Your task to perform on an android device: Add lg ultragear to the cart on amazon.com, then select checkout. Image 0: 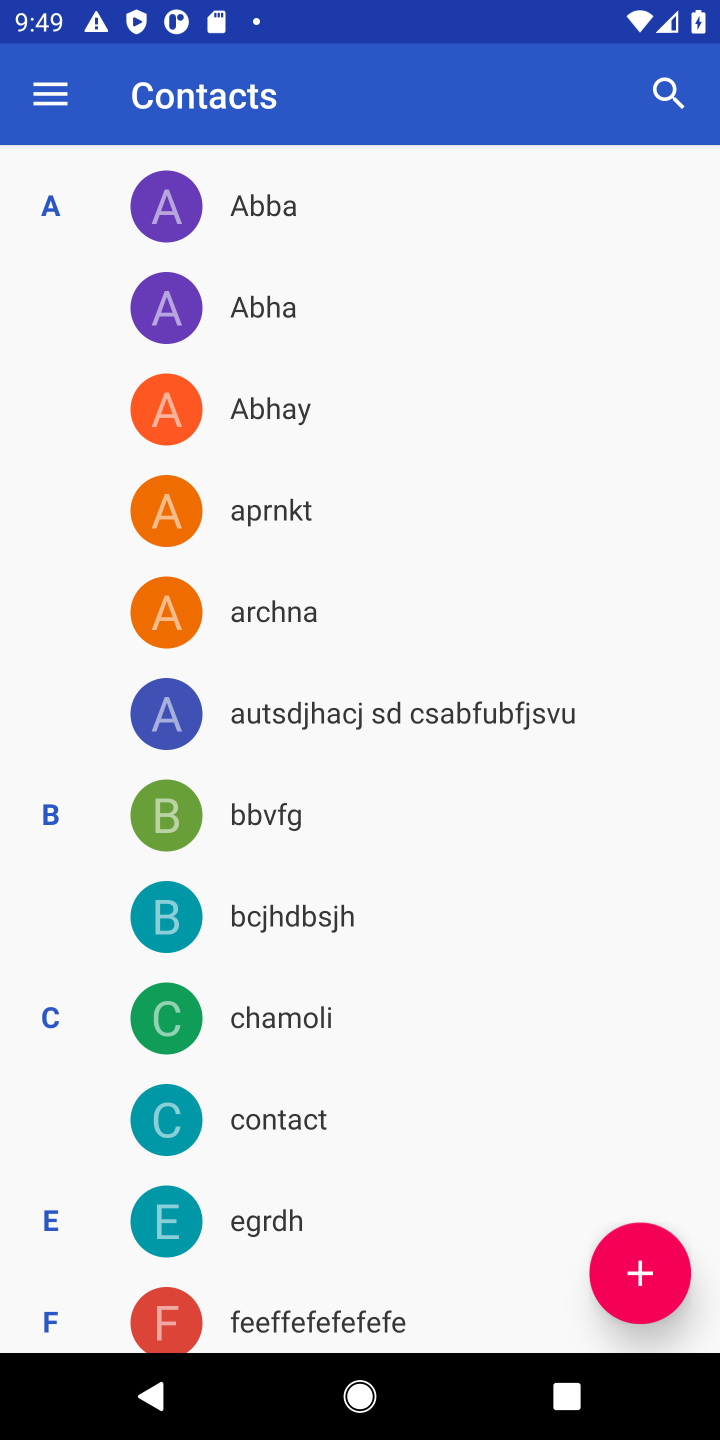
Step 0: press home button
Your task to perform on an android device: Add lg ultragear to the cart on amazon.com, then select checkout. Image 1: 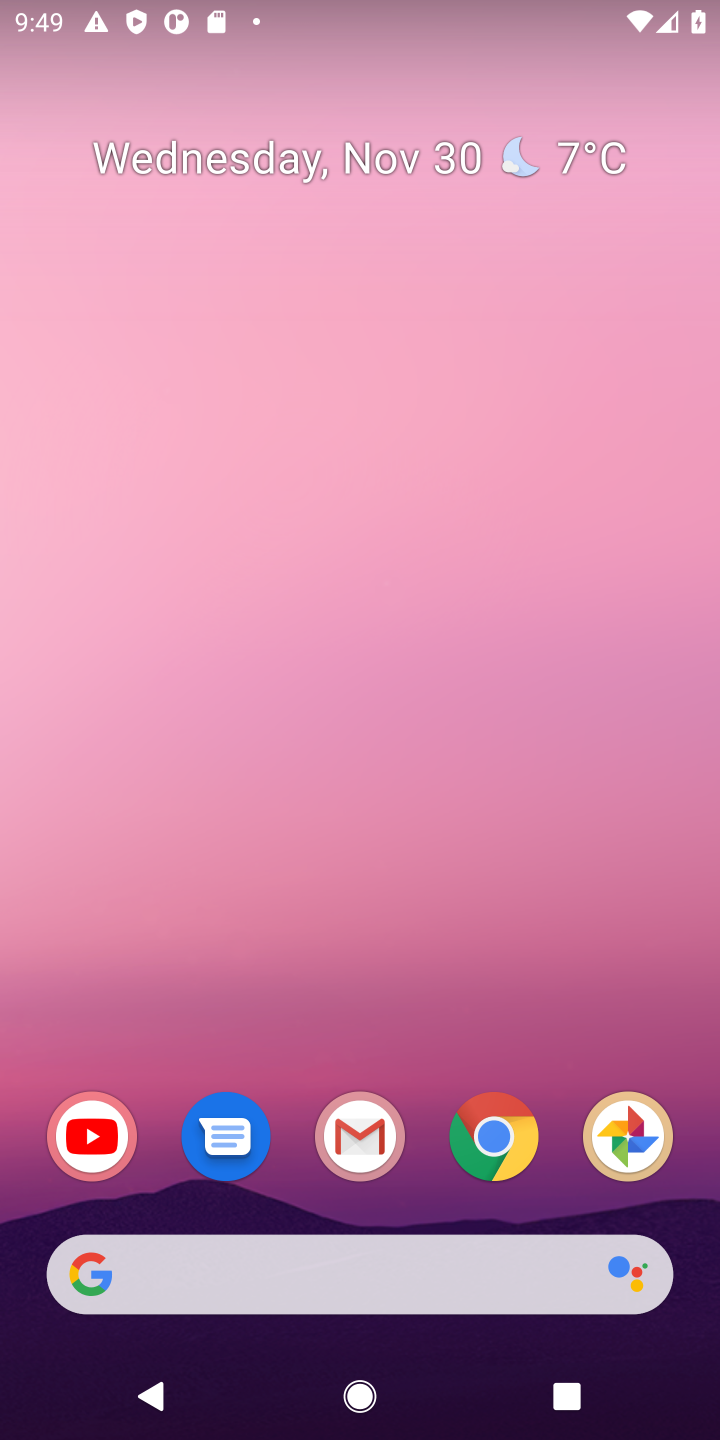
Step 1: click (490, 1133)
Your task to perform on an android device: Add lg ultragear to the cart on amazon.com, then select checkout. Image 2: 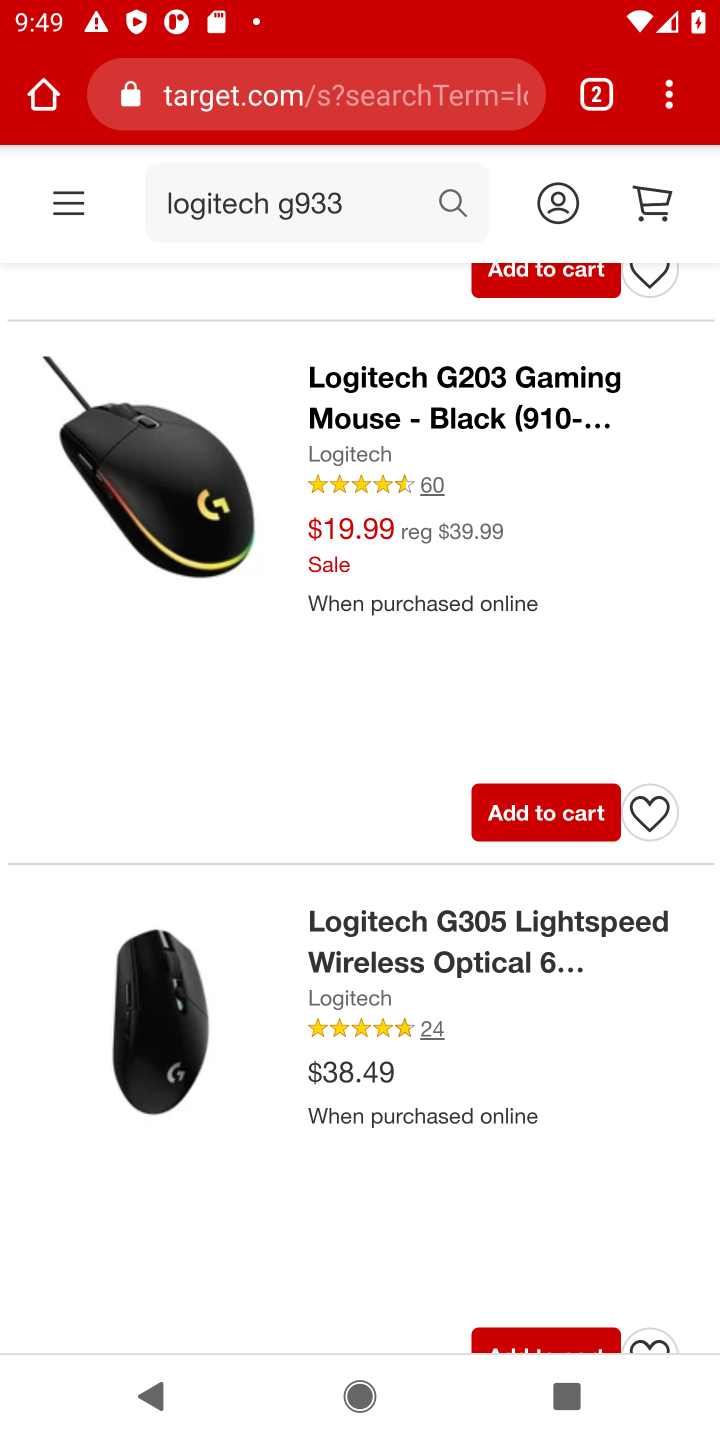
Step 2: click (254, 111)
Your task to perform on an android device: Add lg ultragear to the cart on amazon.com, then select checkout. Image 3: 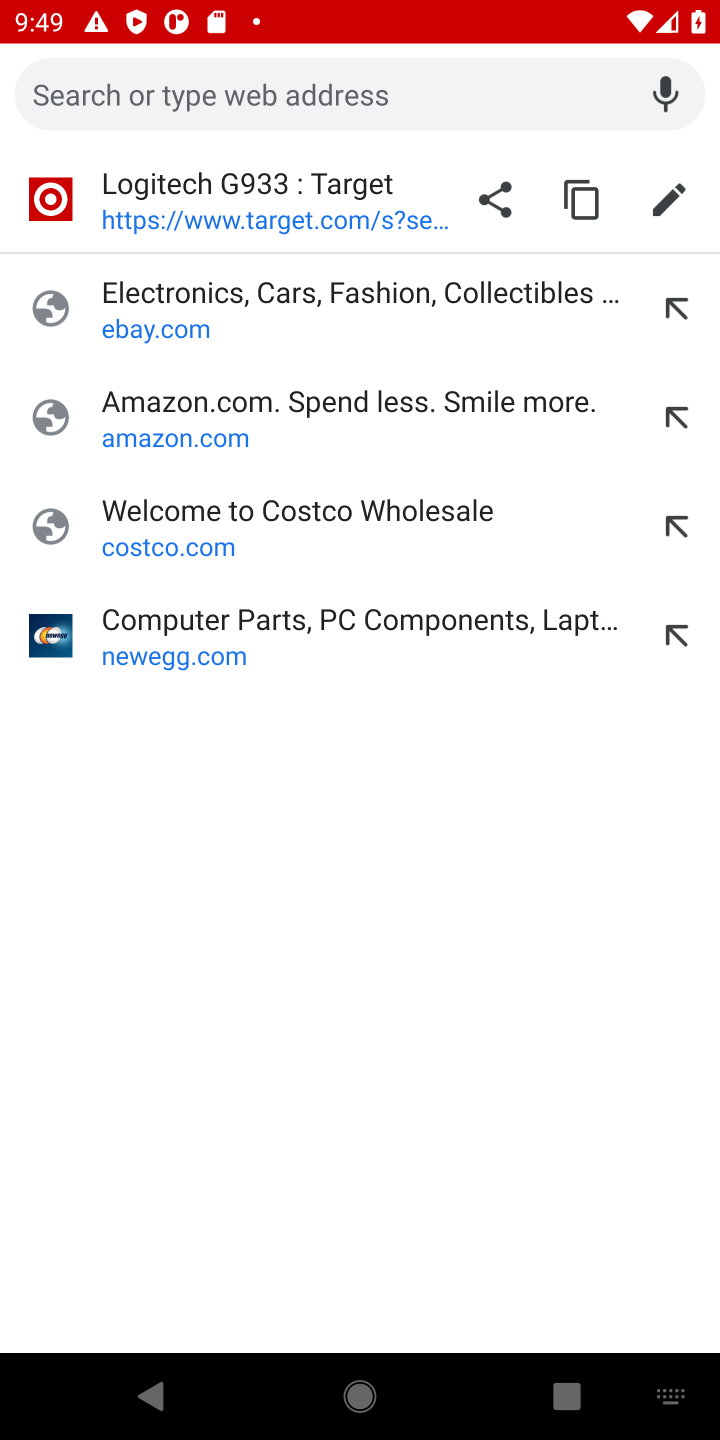
Step 3: click (168, 413)
Your task to perform on an android device: Add lg ultragear to the cart on amazon.com, then select checkout. Image 4: 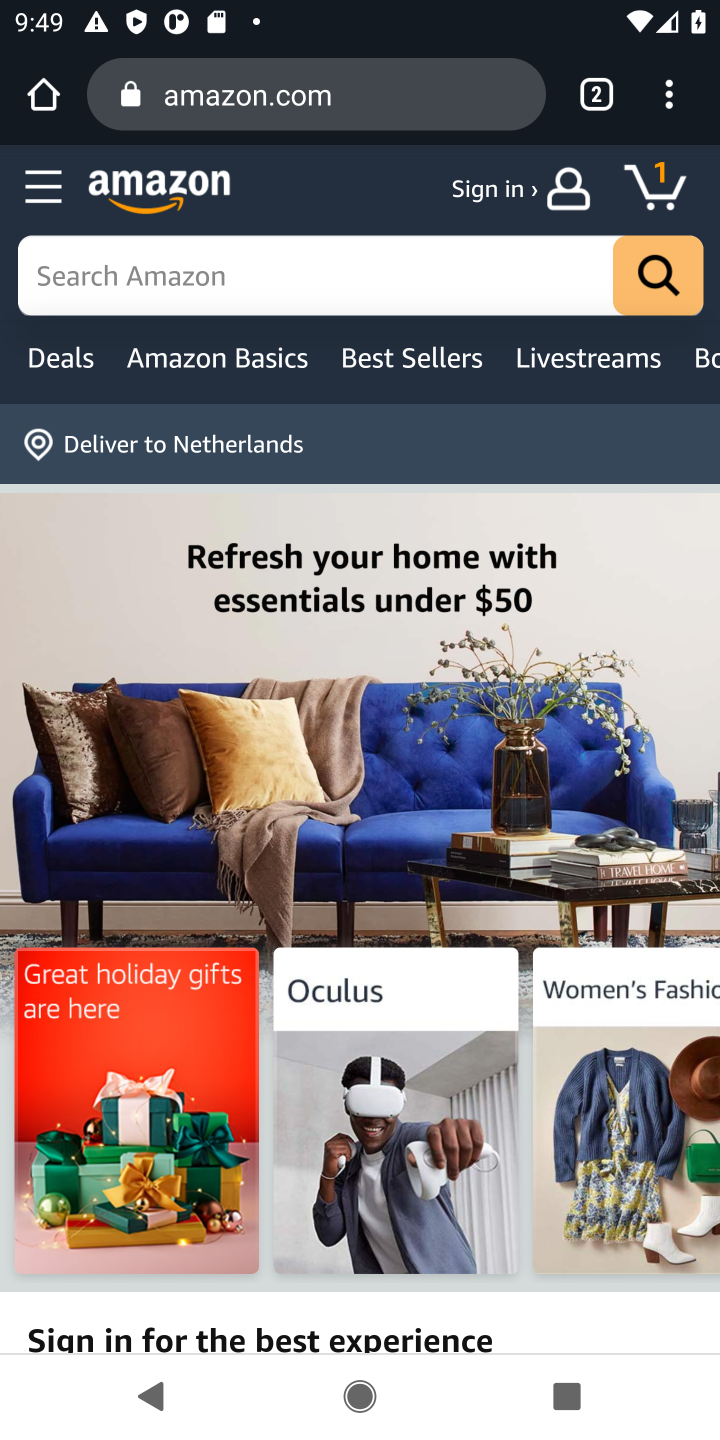
Step 4: click (116, 268)
Your task to perform on an android device: Add lg ultragear to the cart on amazon.com, then select checkout. Image 5: 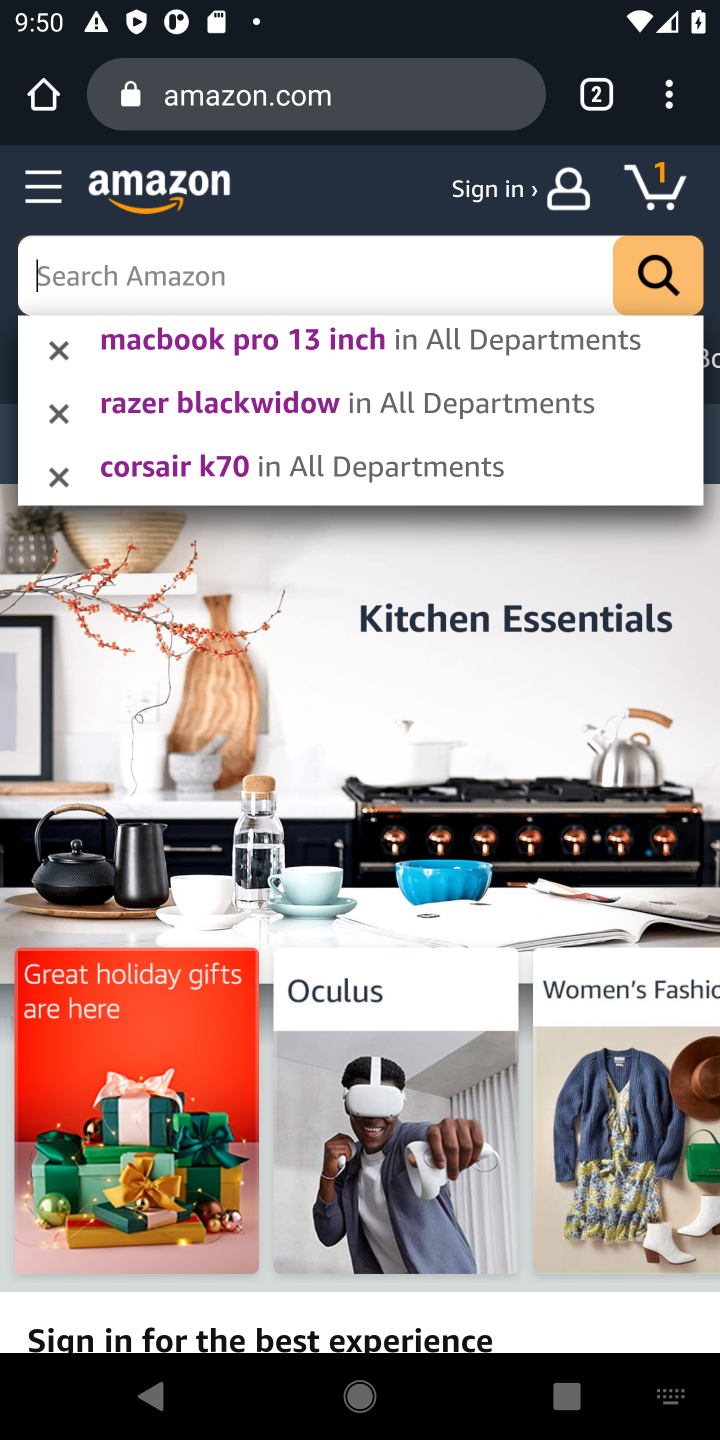
Step 5: type "lg ultragear"
Your task to perform on an android device: Add lg ultragear to the cart on amazon.com, then select checkout. Image 6: 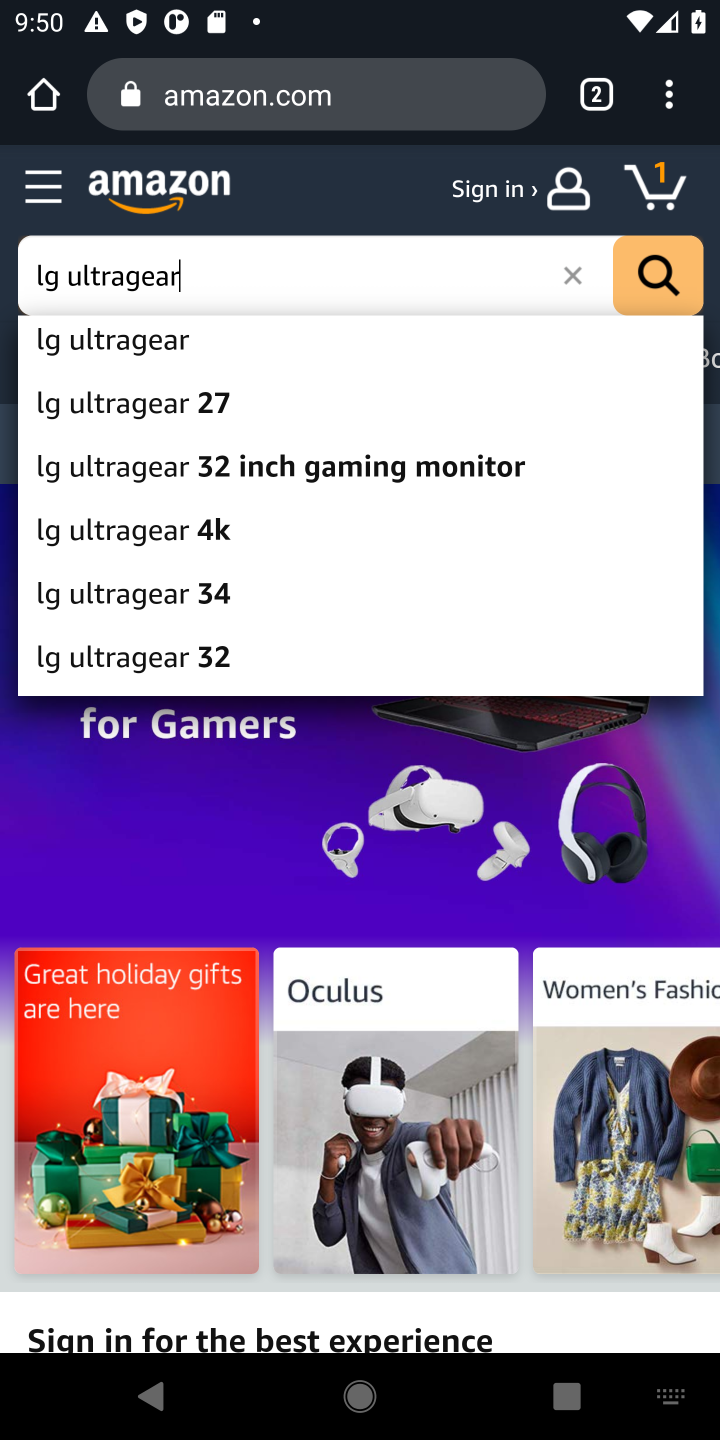
Step 6: click (158, 342)
Your task to perform on an android device: Add lg ultragear to the cart on amazon.com, then select checkout. Image 7: 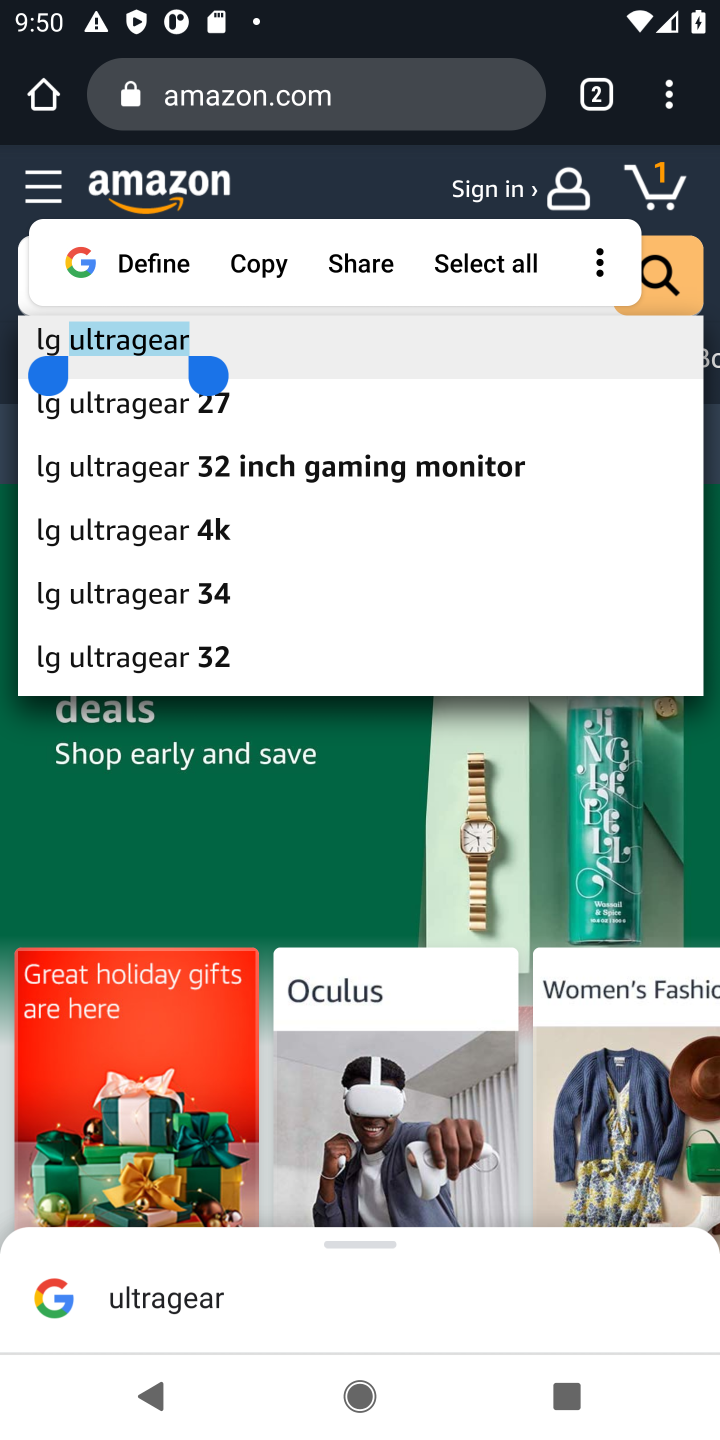
Step 7: click (56, 354)
Your task to perform on an android device: Add lg ultragear to the cart on amazon.com, then select checkout. Image 8: 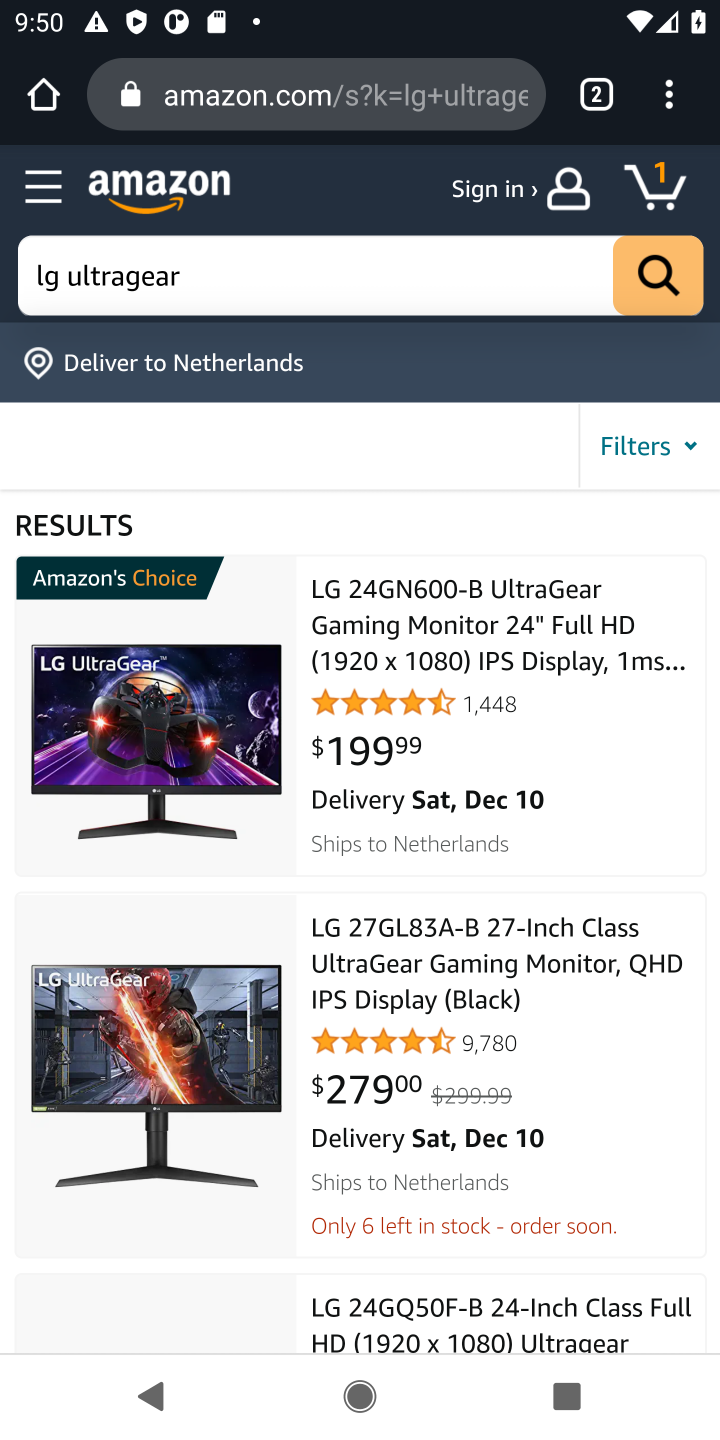
Step 8: click (475, 658)
Your task to perform on an android device: Add lg ultragear to the cart on amazon.com, then select checkout. Image 9: 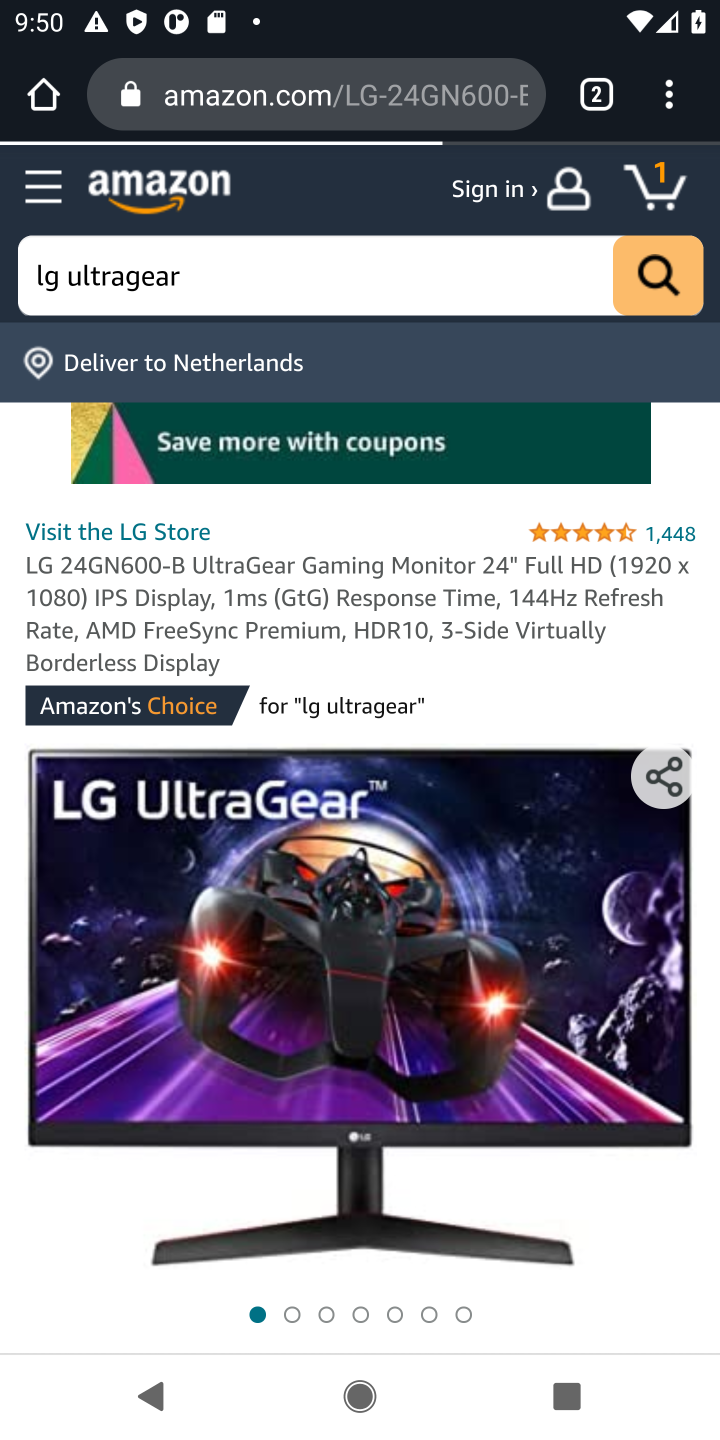
Step 9: drag from (549, 1120) to (517, 577)
Your task to perform on an android device: Add lg ultragear to the cart on amazon.com, then select checkout. Image 10: 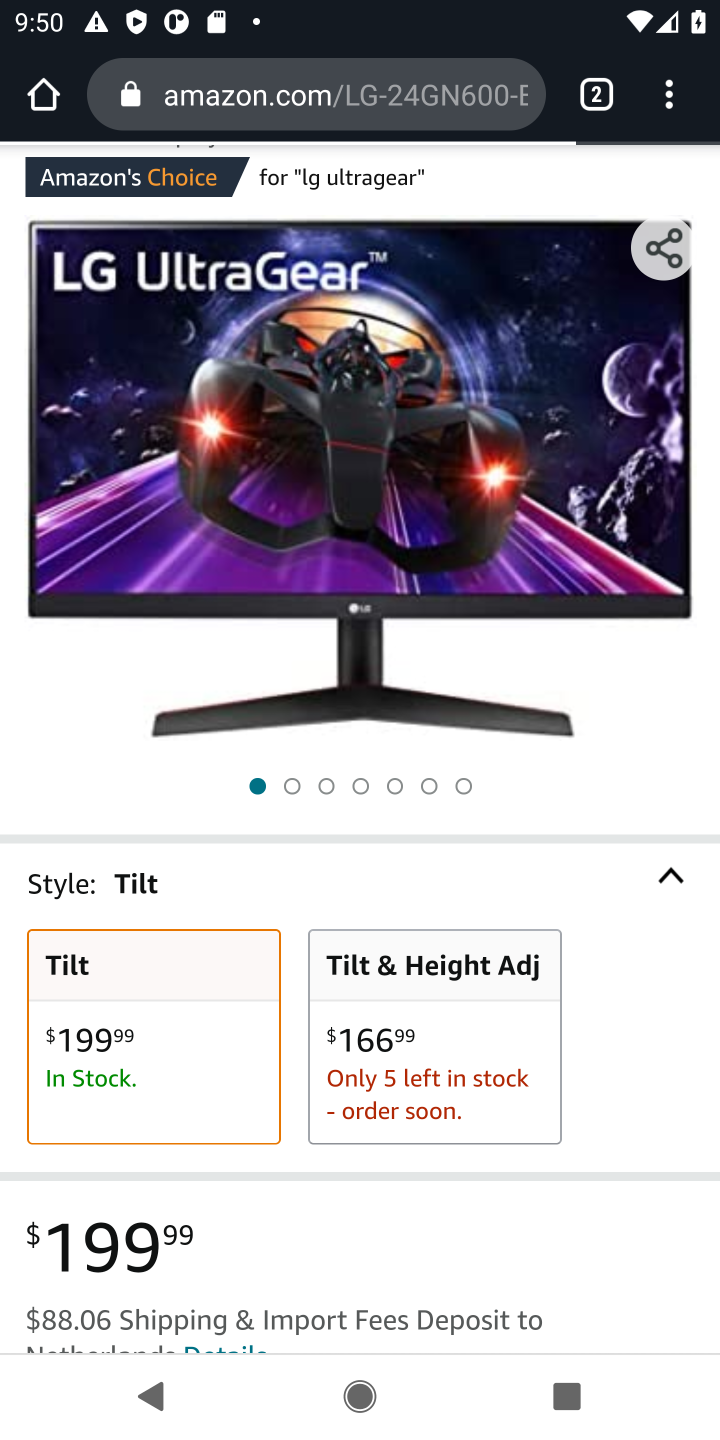
Step 10: drag from (570, 998) to (555, 637)
Your task to perform on an android device: Add lg ultragear to the cart on amazon.com, then select checkout. Image 11: 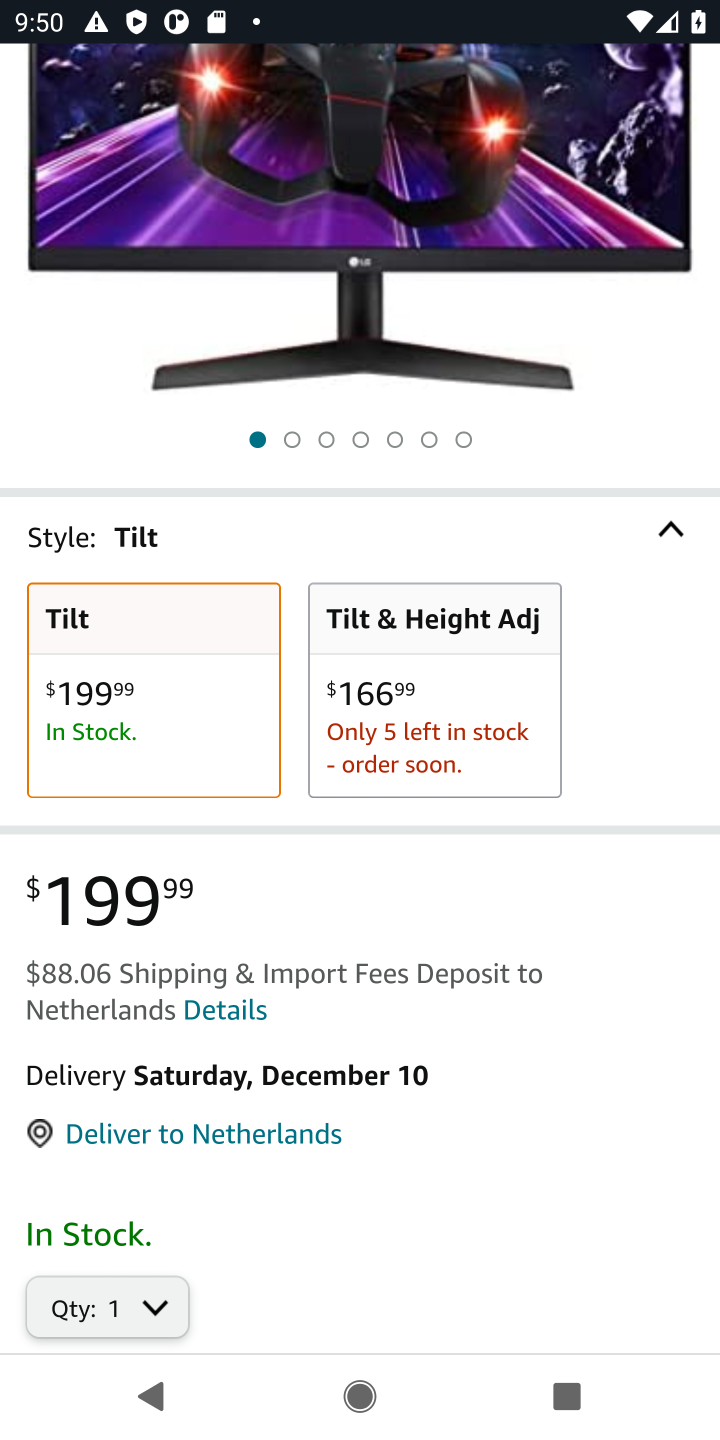
Step 11: drag from (451, 1123) to (510, 698)
Your task to perform on an android device: Add lg ultragear to the cart on amazon.com, then select checkout. Image 12: 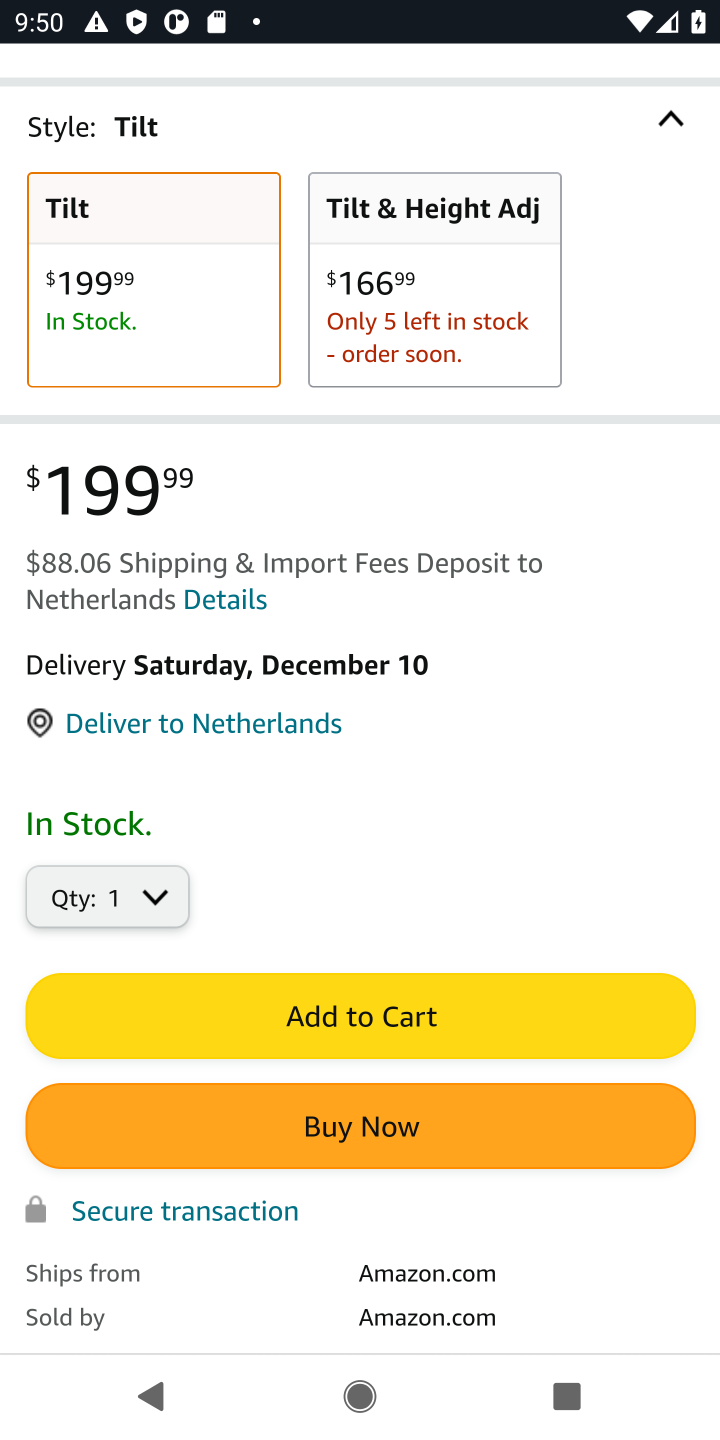
Step 12: click (353, 1012)
Your task to perform on an android device: Add lg ultragear to the cart on amazon.com, then select checkout. Image 13: 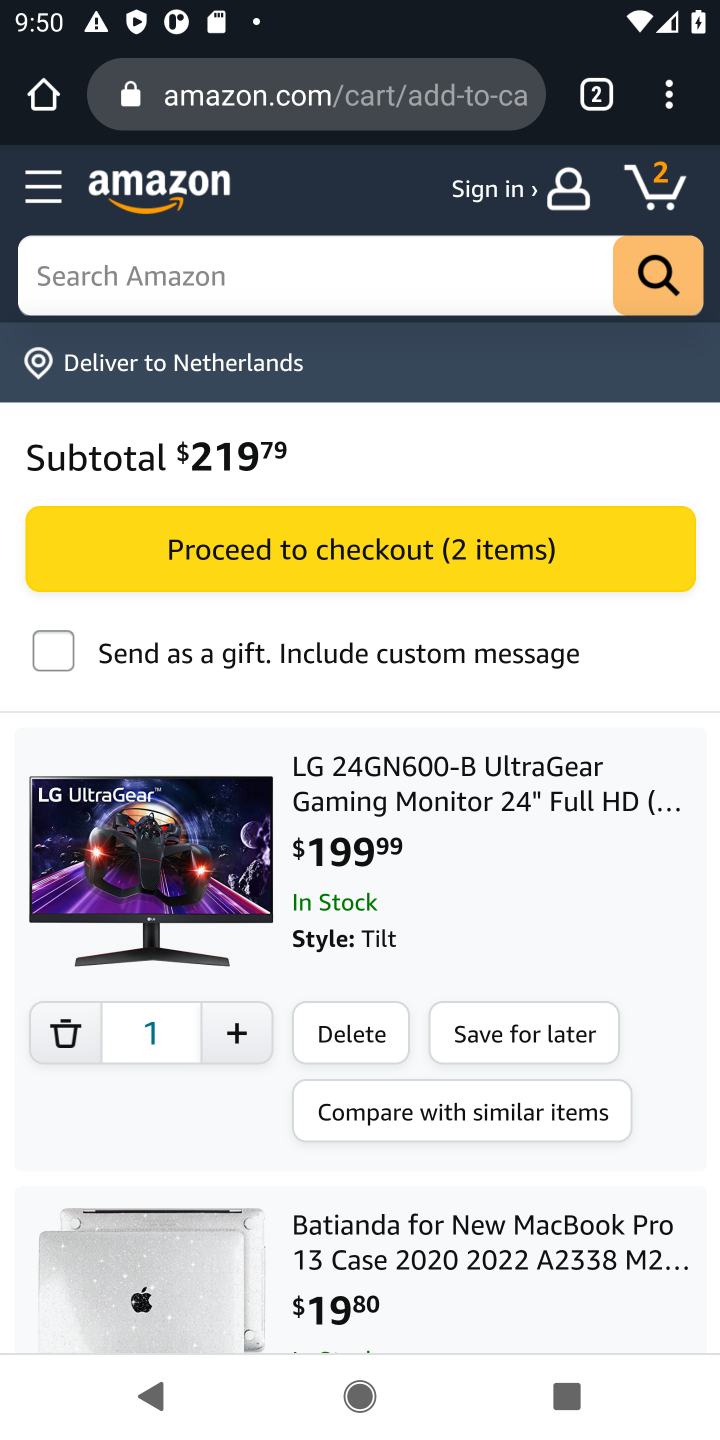
Step 13: click (350, 563)
Your task to perform on an android device: Add lg ultragear to the cart on amazon.com, then select checkout. Image 14: 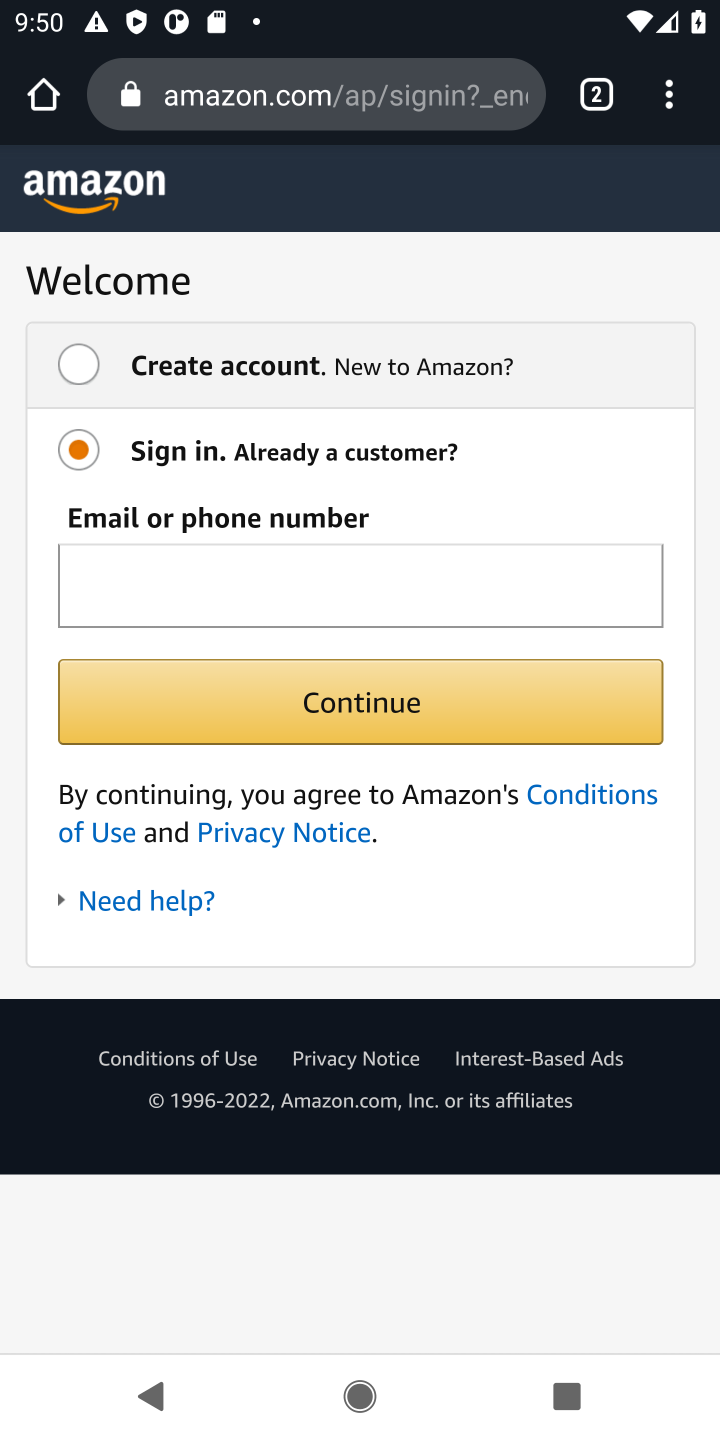
Step 14: task complete